Your task to perform on an android device: Open Google Chrome and open the bookmarks view Image 0: 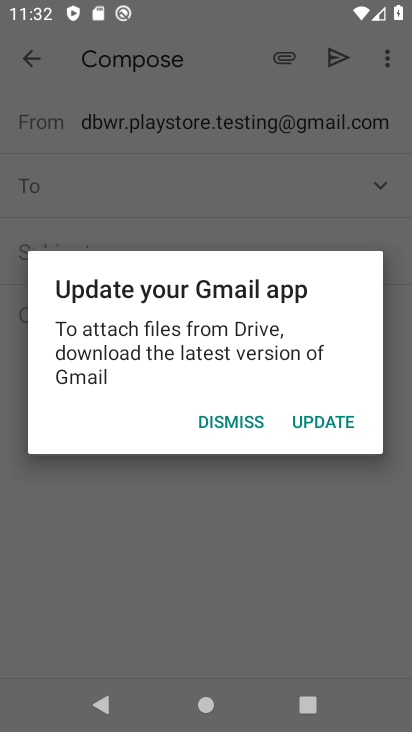
Step 0: press back button
Your task to perform on an android device: Open Google Chrome and open the bookmarks view Image 1: 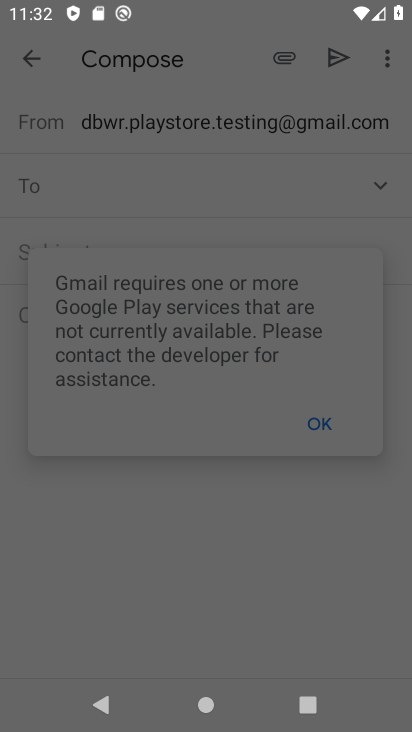
Step 1: press back button
Your task to perform on an android device: Open Google Chrome and open the bookmarks view Image 2: 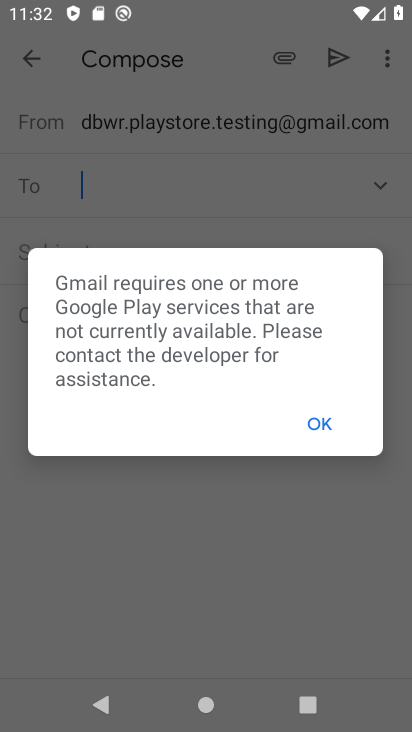
Step 2: press back button
Your task to perform on an android device: Open Google Chrome and open the bookmarks view Image 3: 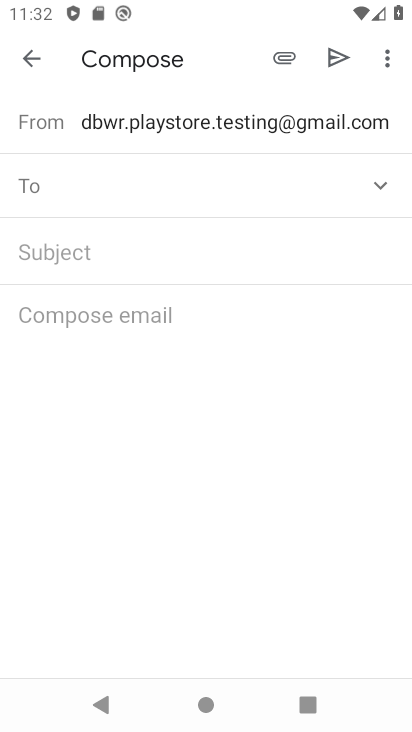
Step 3: press home button
Your task to perform on an android device: Open Google Chrome and open the bookmarks view Image 4: 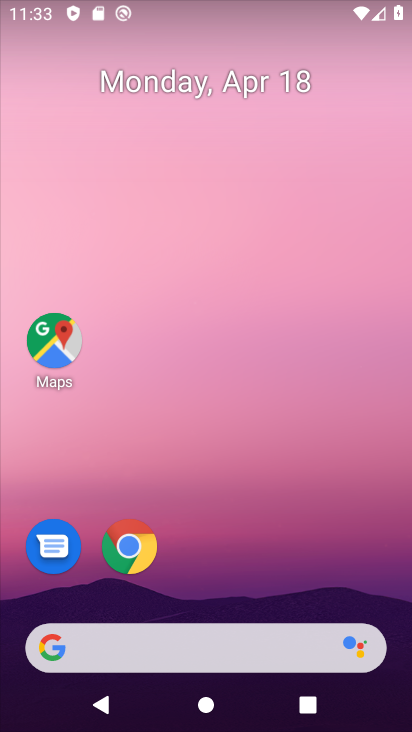
Step 4: click (129, 551)
Your task to perform on an android device: Open Google Chrome and open the bookmarks view Image 5: 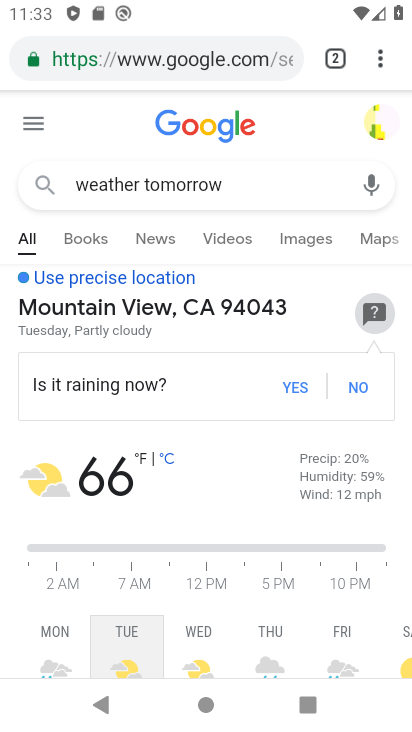
Step 5: click (323, 67)
Your task to perform on an android device: Open Google Chrome and open the bookmarks view Image 6: 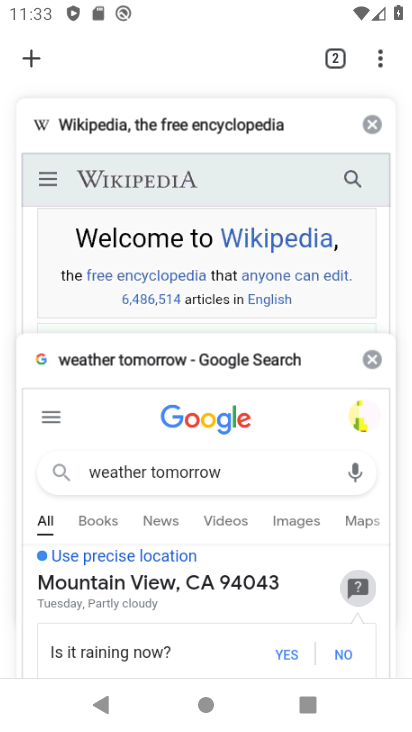
Step 6: click (31, 65)
Your task to perform on an android device: Open Google Chrome and open the bookmarks view Image 7: 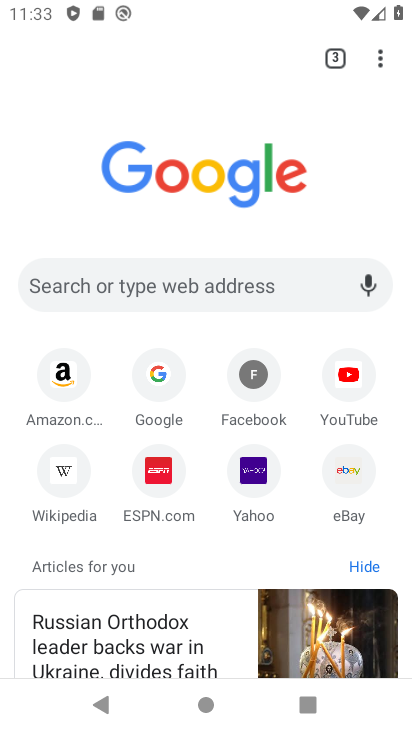
Step 7: click (377, 58)
Your task to perform on an android device: Open Google Chrome and open the bookmarks view Image 8: 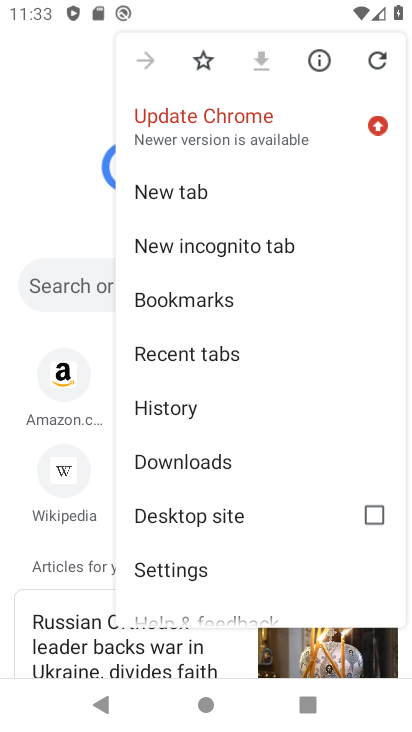
Step 8: click (221, 299)
Your task to perform on an android device: Open Google Chrome and open the bookmarks view Image 9: 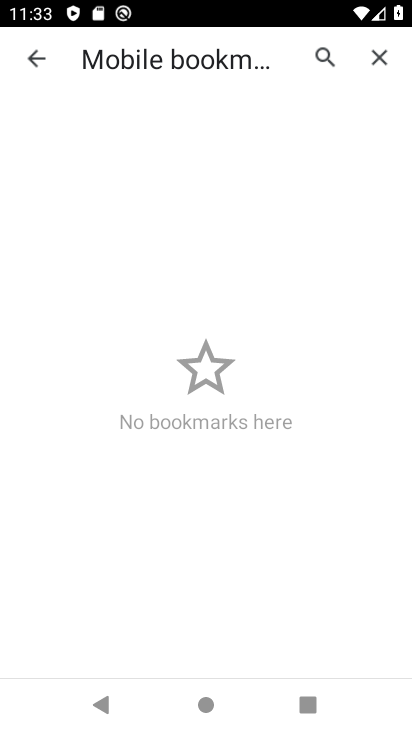
Step 9: task complete